Your task to perform on an android device: open device folders in google photos Image 0: 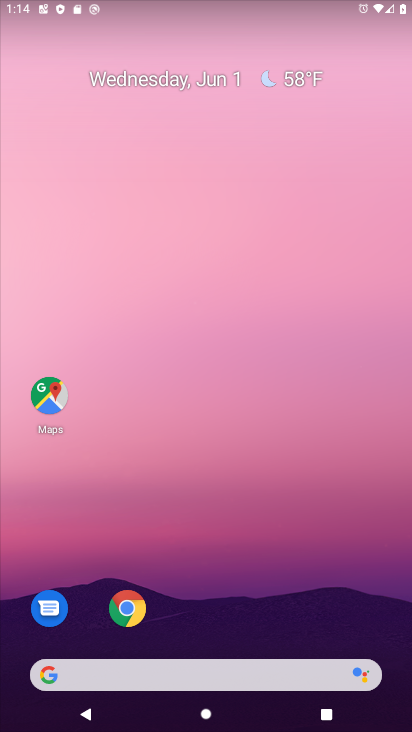
Step 0: drag from (280, 574) to (286, 26)
Your task to perform on an android device: open device folders in google photos Image 1: 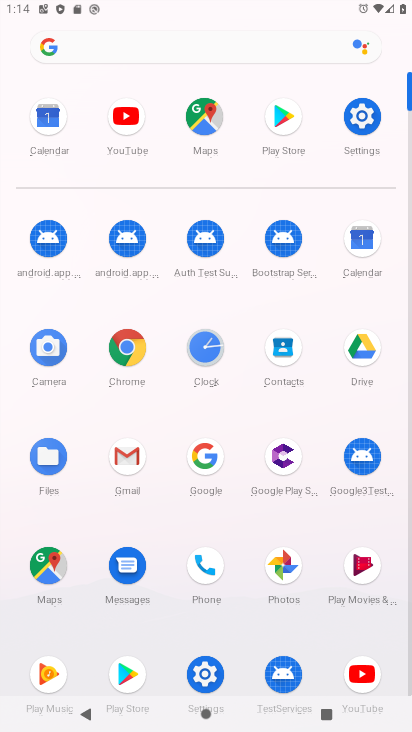
Step 1: click (277, 561)
Your task to perform on an android device: open device folders in google photos Image 2: 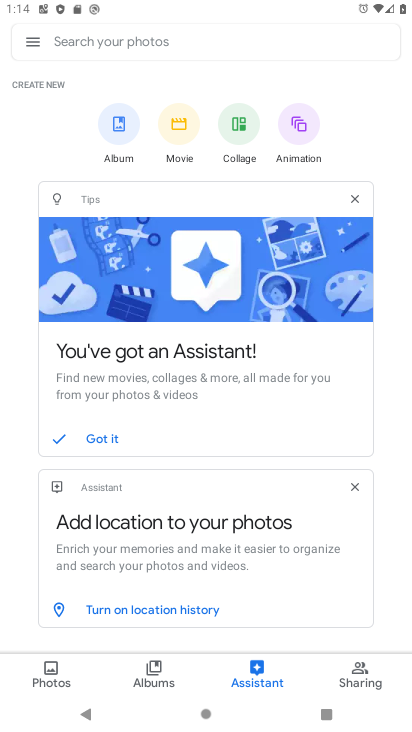
Step 2: click (55, 672)
Your task to perform on an android device: open device folders in google photos Image 3: 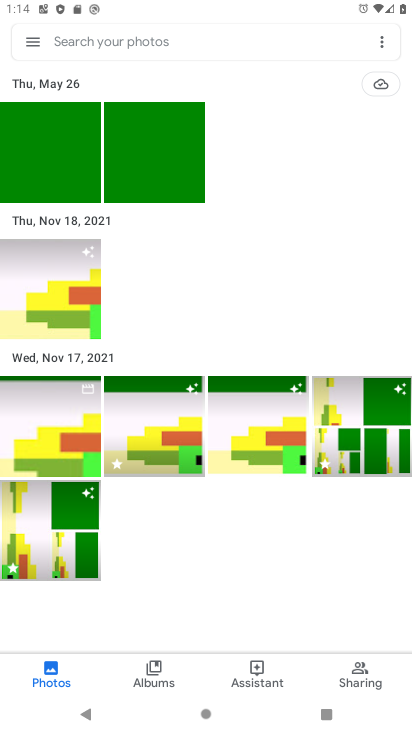
Step 3: click (29, 32)
Your task to perform on an android device: open device folders in google photos Image 4: 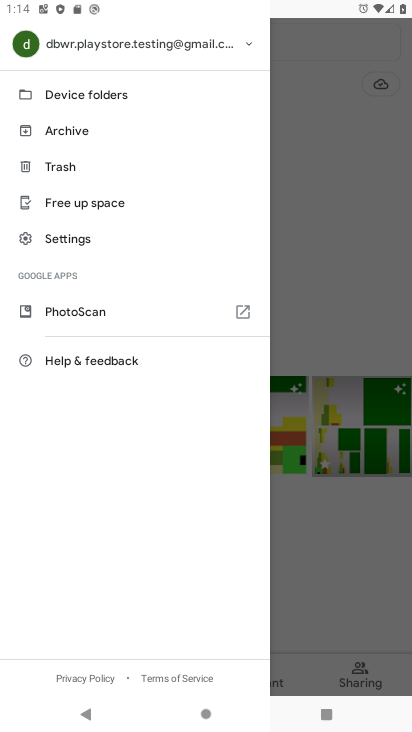
Step 4: click (50, 94)
Your task to perform on an android device: open device folders in google photos Image 5: 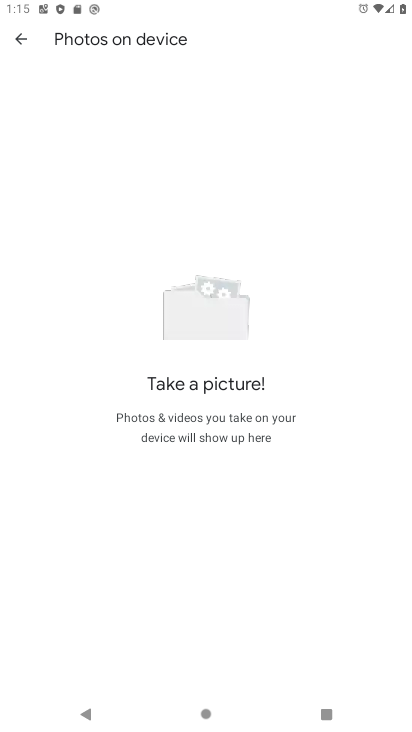
Step 5: task complete